Your task to perform on an android device: turn smart compose on in the gmail app Image 0: 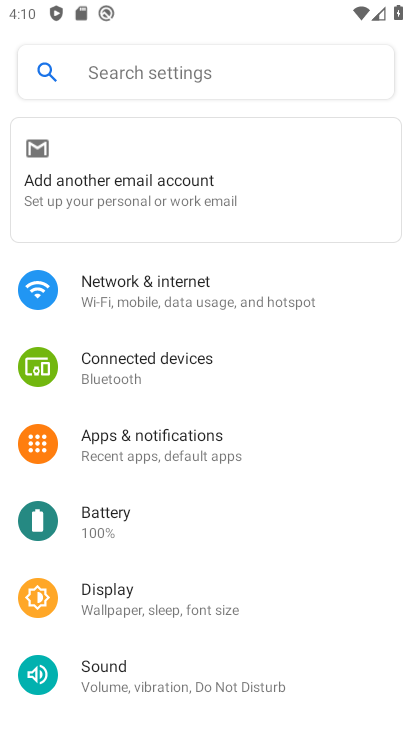
Step 0: drag from (288, 646) to (270, 89)
Your task to perform on an android device: turn smart compose on in the gmail app Image 1: 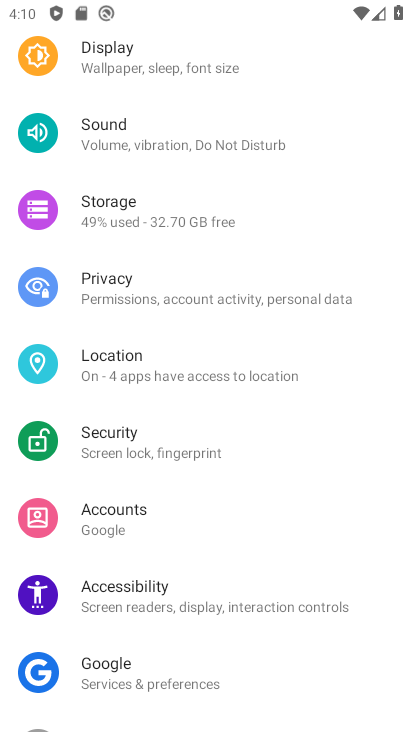
Step 1: press home button
Your task to perform on an android device: turn smart compose on in the gmail app Image 2: 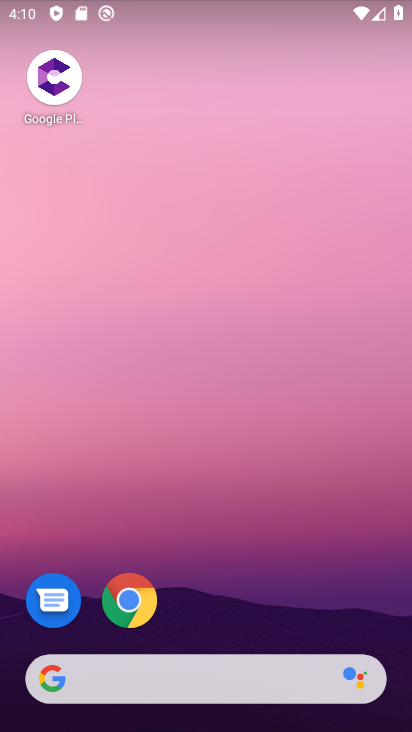
Step 2: drag from (237, 590) to (246, 109)
Your task to perform on an android device: turn smart compose on in the gmail app Image 3: 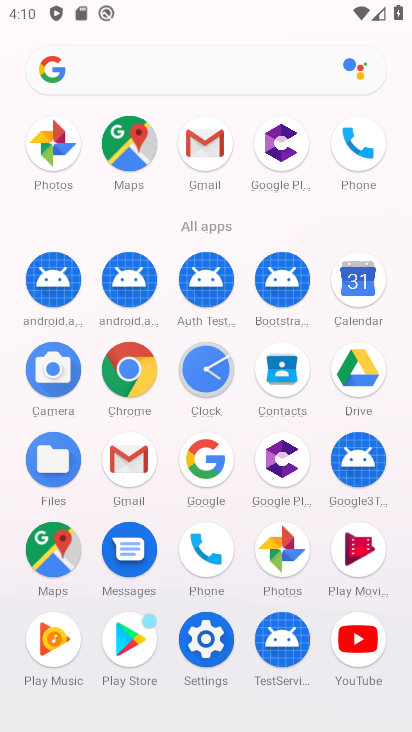
Step 3: click (140, 460)
Your task to perform on an android device: turn smart compose on in the gmail app Image 4: 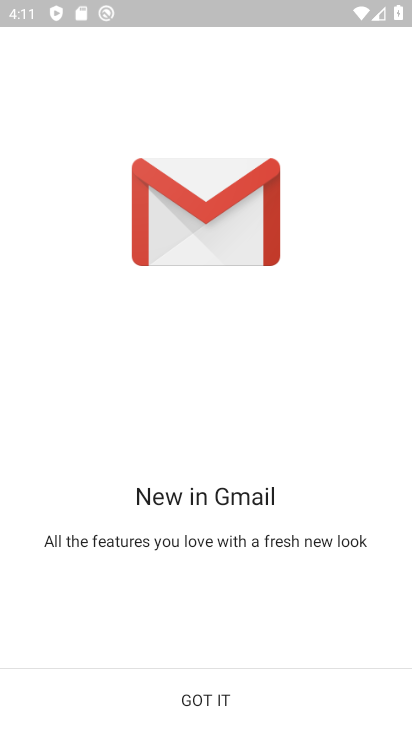
Step 4: click (197, 689)
Your task to perform on an android device: turn smart compose on in the gmail app Image 5: 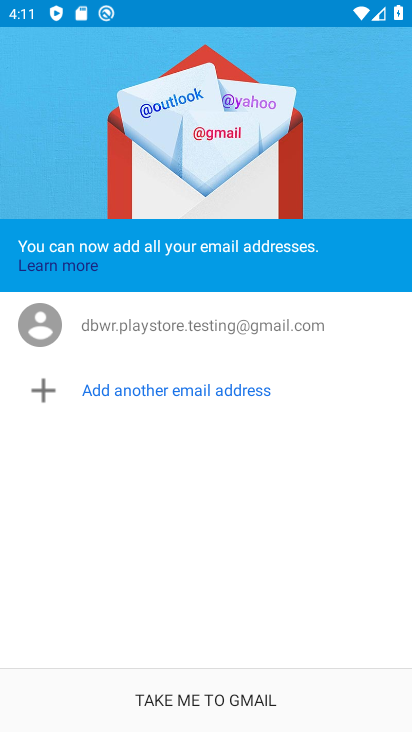
Step 5: click (244, 710)
Your task to perform on an android device: turn smart compose on in the gmail app Image 6: 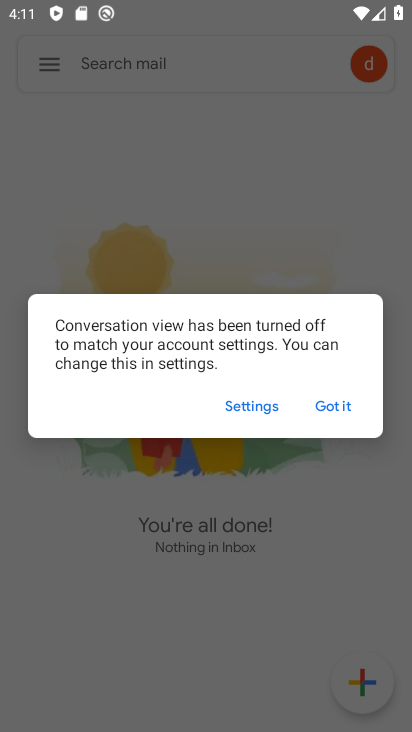
Step 6: press home button
Your task to perform on an android device: turn smart compose on in the gmail app Image 7: 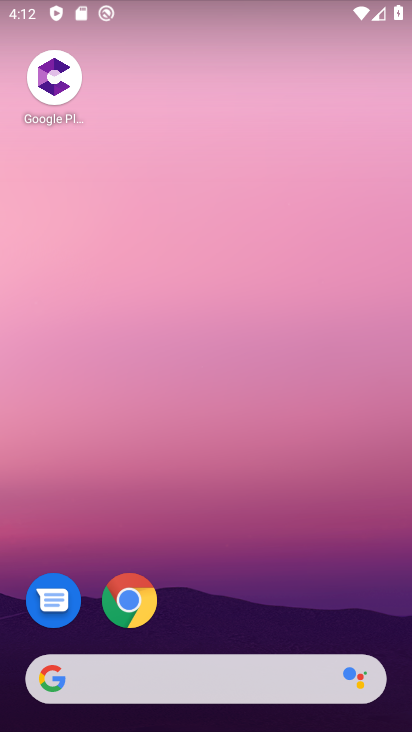
Step 7: drag from (325, 539) to (264, 25)
Your task to perform on an android device: turn smart compose on in the gmail app Image 8: 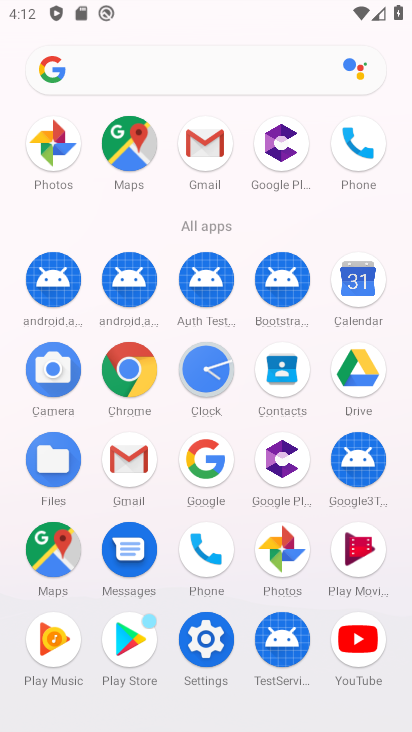
Step 8: click (203, 157)
Your task to perform on an android device: turn smart compose on in the gmail app Image 9: 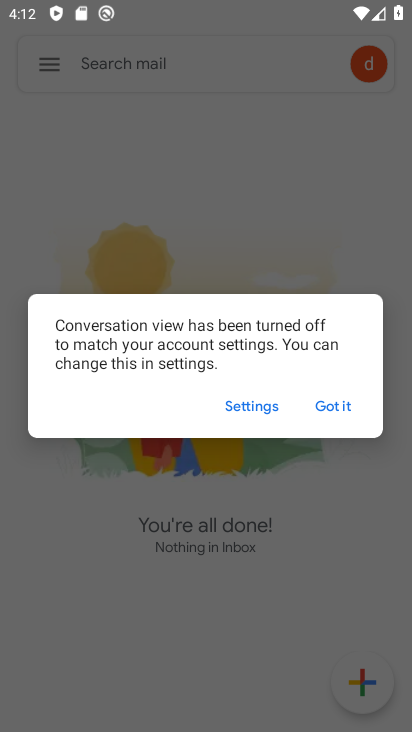
Step 9: click (310, 408)
Your task to perform on an android device: turn smart compose on in the gmail app Image 10: 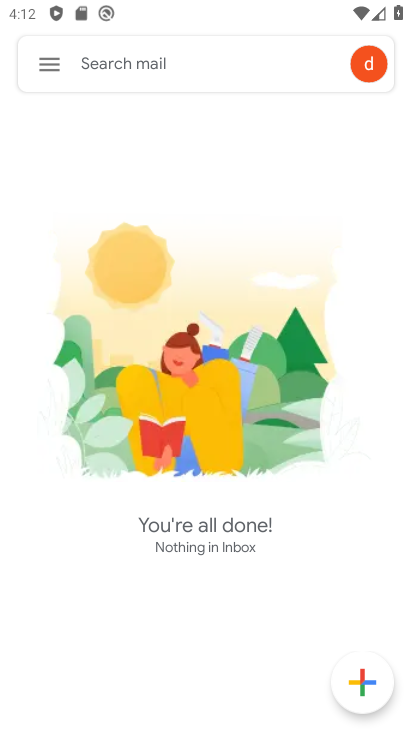
Step 10: click (310, 408)
Your task to perform on an android device: turn smart compose on in the gmail app Image 11: 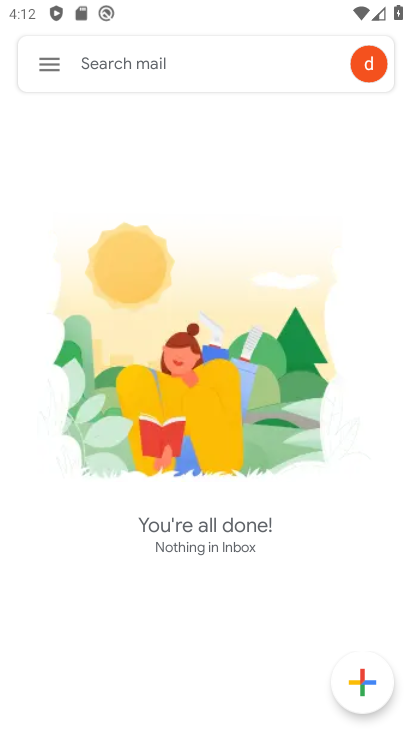
Step 11: click (38, 61)
Your task to perform on an android device: turn smart compose on in the gmail app Image 12: 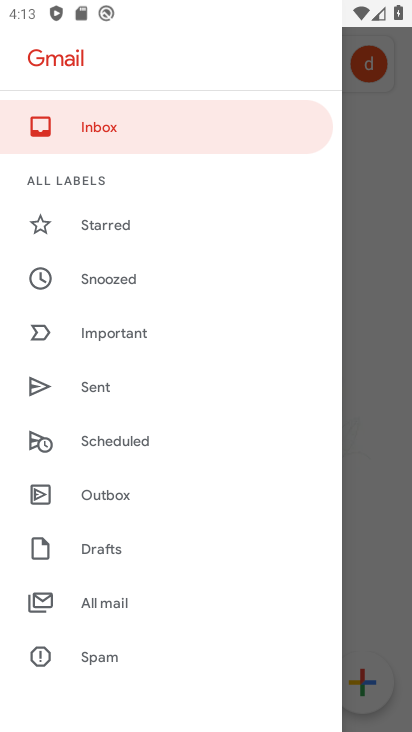
Step 12: drag from (168, 568) to (110, 16)
Your task to perform on an android device: turn smart compose on in the gmail app Image 13: 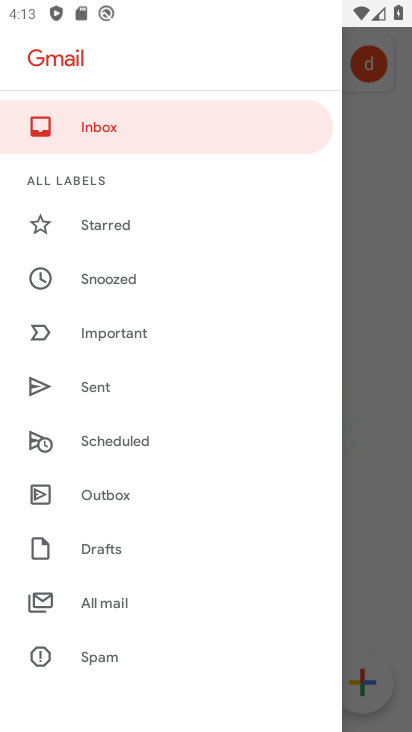
Step 13: drag from (230, 509) to (214, 149)
Your task to perform on an android device: turn smart compose on in the gmail app Image 14: 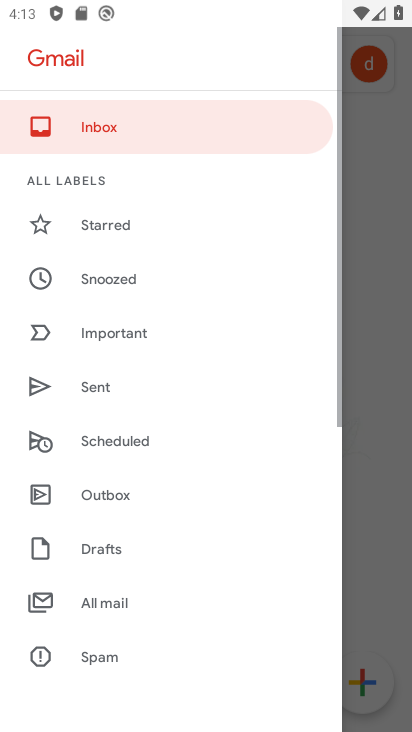
Step 14: drag from (123, 628) to (186, 90)
Your task to perform on an android device: turn smart compose on in the gmail app Image 15: 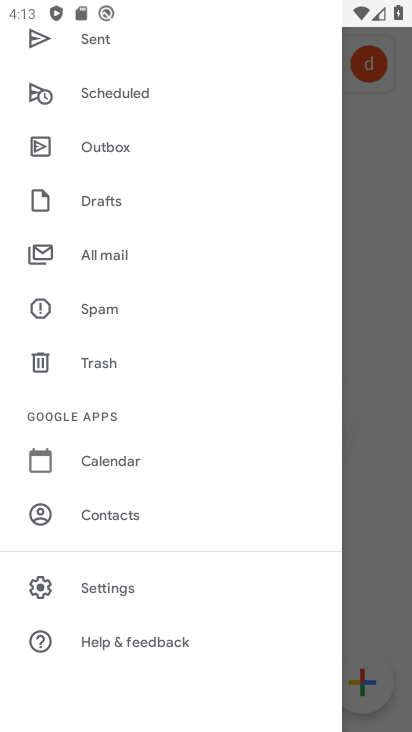
Step 15: click (122, 584)
Your task to perform on an android device: turn smart compose on in the gmail app Image 16: 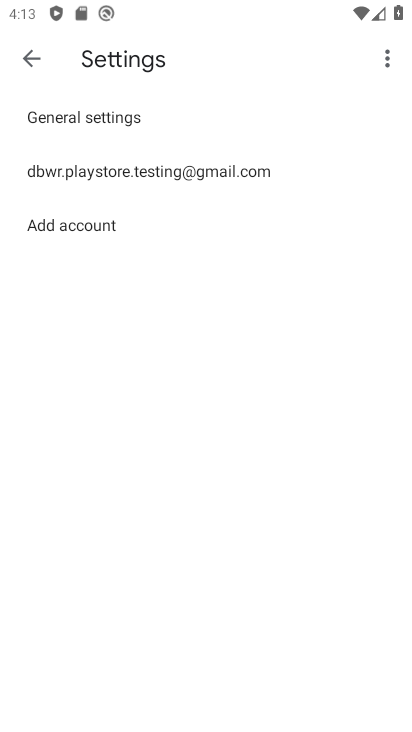
Step 16: click (195, 170)
Your task to perform on an android device: turn smart compose on in the gmail app Image 17: 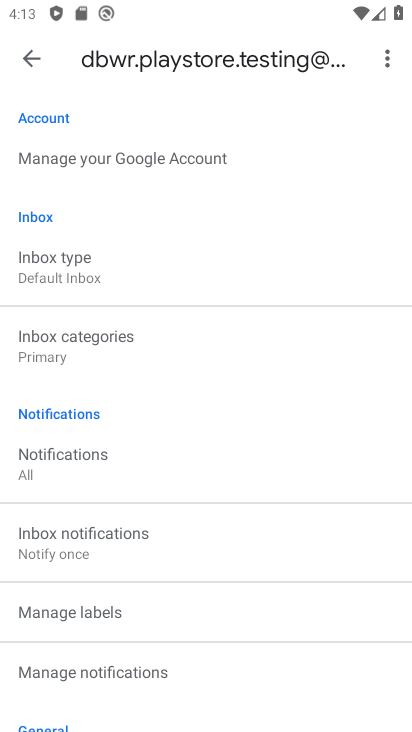
Step 17: task complete